Your task to perform on an android device: toggle data saver in the chrome app Image 0: 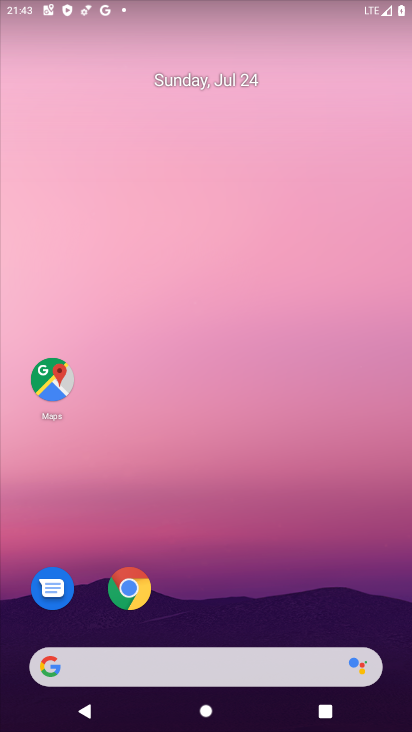
Step 0: click (143, 599)
Your task to perform on an android device: toggle data saver in the chrome app Image 1: 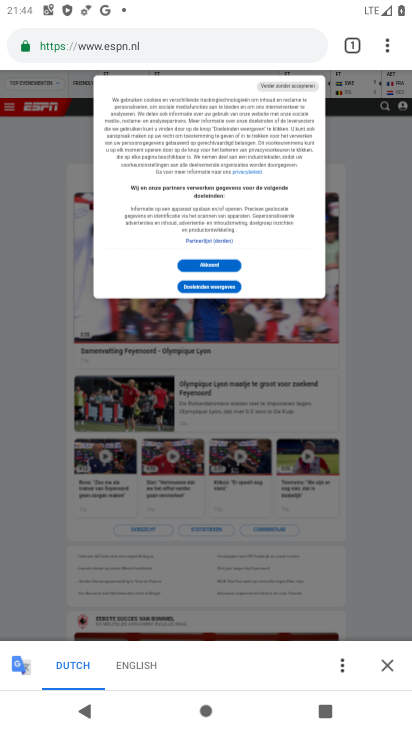
Step 1: drag from (386, 41) to (241, 554)
Your task to perform on an android device: toggle data saver in the chrome app Image 2: 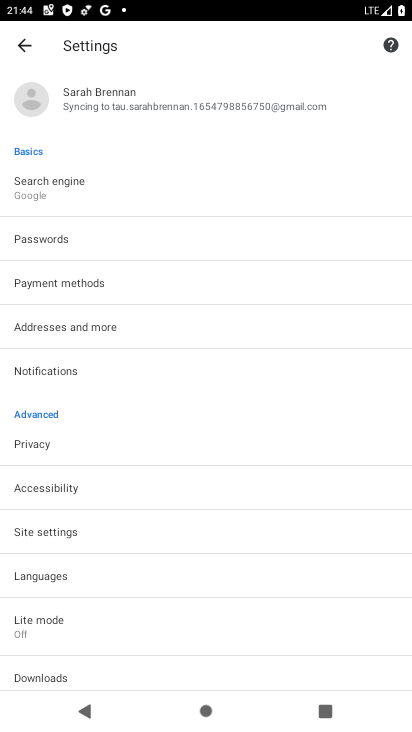
Step 2: click (88, 629)
Your task to perform on an android device: toggle data saver in the chrome app Image 3: 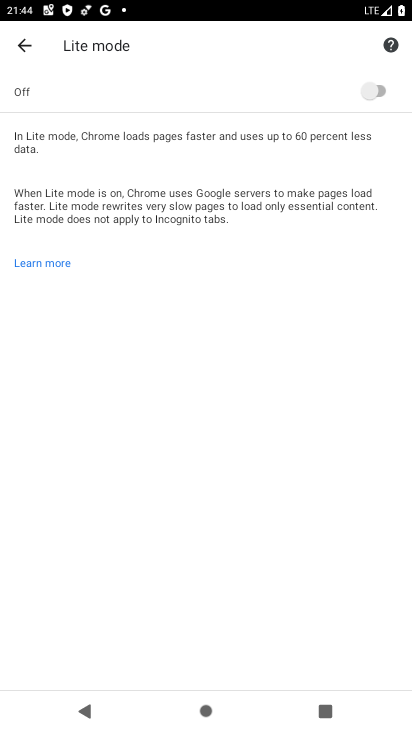
Step 3: click (376, 89)
Your task to perform on an android device: toggle data saver in the chrome app Image 4: 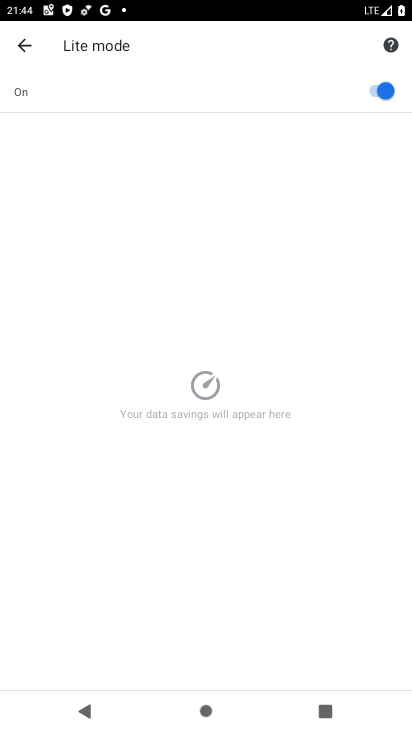
Step 4: task complete